Your task to perform on an android device: Open Google Maps Image 0: 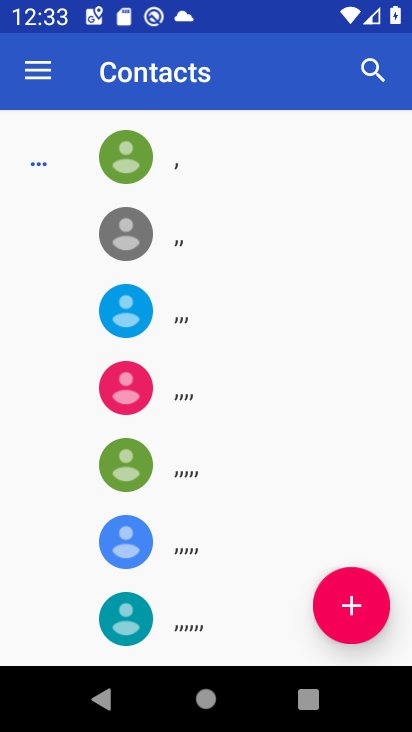
Step 0: press back button
Your task to perform on an android device: Open Google Maps Image 1: 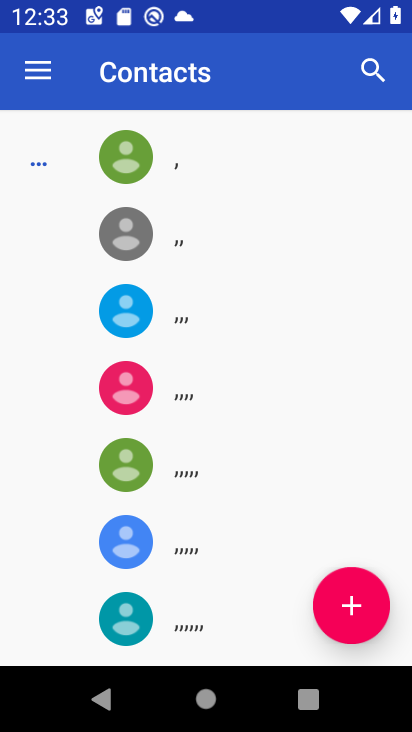
Step 1: press back button
Your task to perform on an android device: Open Google Maps Image 2: 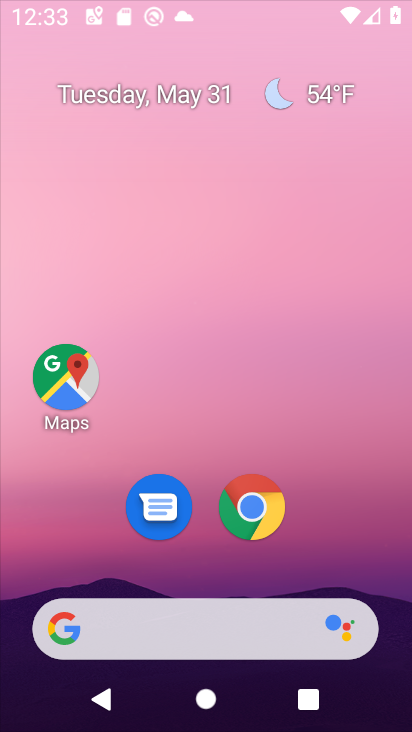
Step 2: press back button
Your task to perform on an android device: Open Google Maps Image 3: 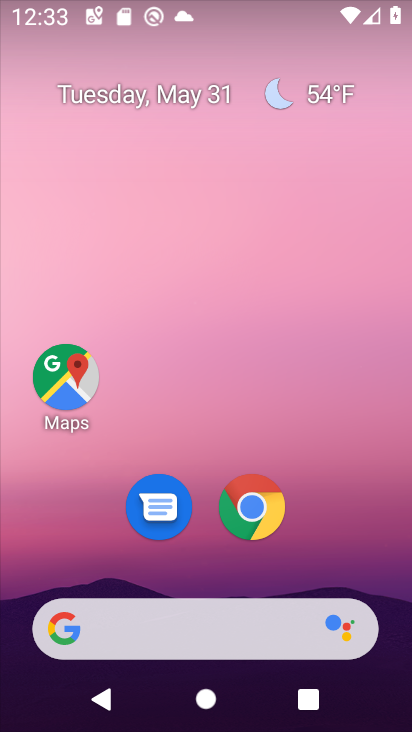
Step 3: drag from (268, 691) to (152, 117)
Your task to perform on an android device: Open Google Maps Image 4: 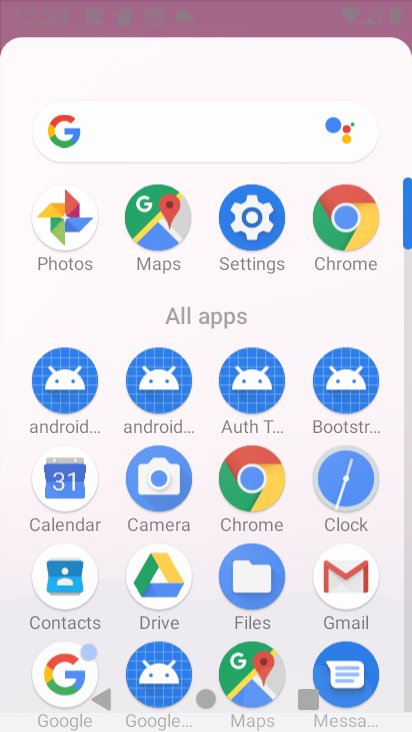
Step 4: click (124, 245)
Your task to perform on an android device: Open Google Maps Image 5: 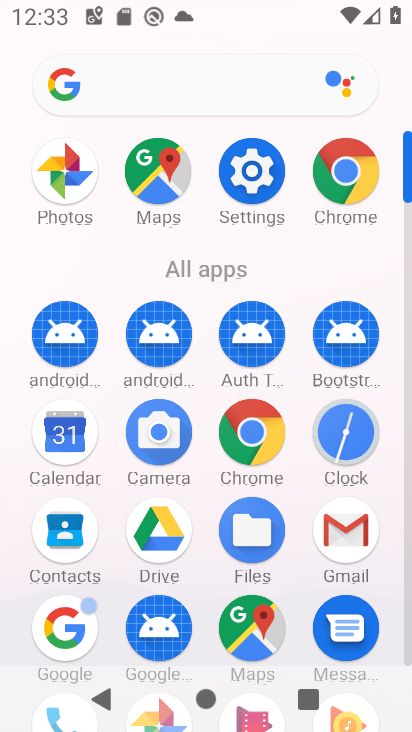
Step 5: click (266, 631)
Your task to perform on an android device: Open Google Maps Image 6: 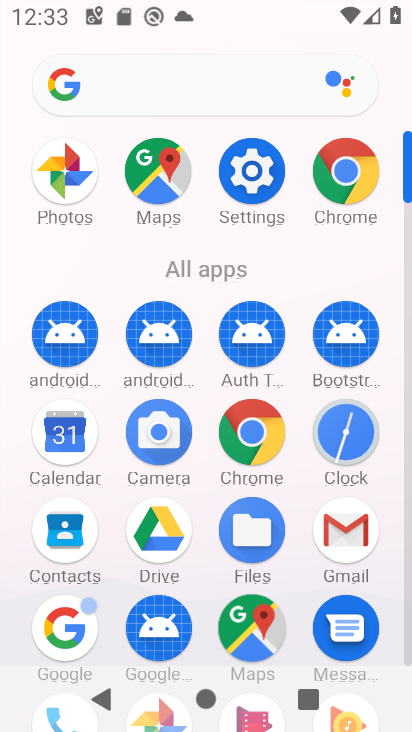
Step 6: click (264, 633)
Your task to perform on an android device: Open Google Maps Image 7: 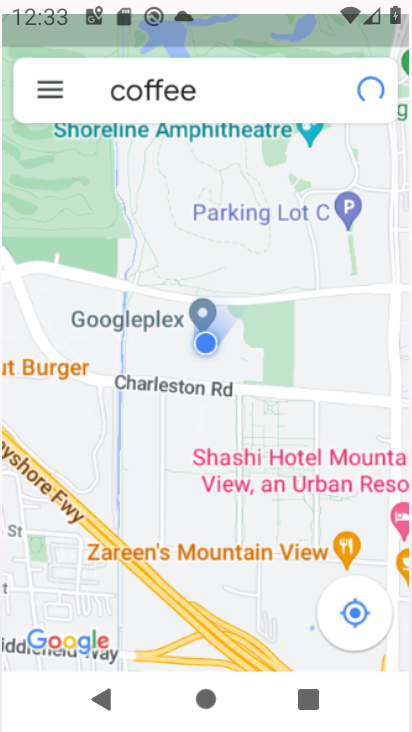
Step 7: click (259, 636)
Your task to perform on an android device: Open Google Maps Image 8: 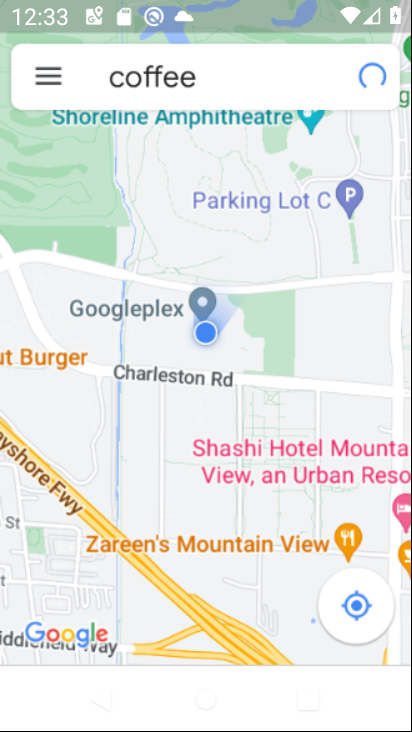
Step 8: click (255, 644)
Your task to perform on an android device: Open Google Maps Image 9: 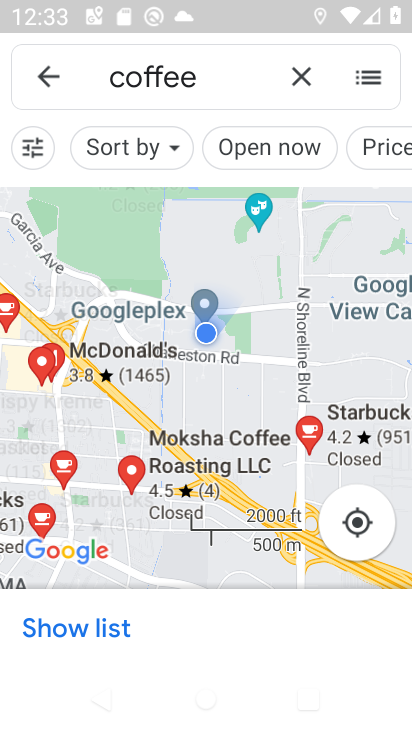
Step 9: click (300, 74)
Your task to perform on an android device: Open Google Maps Image 10: 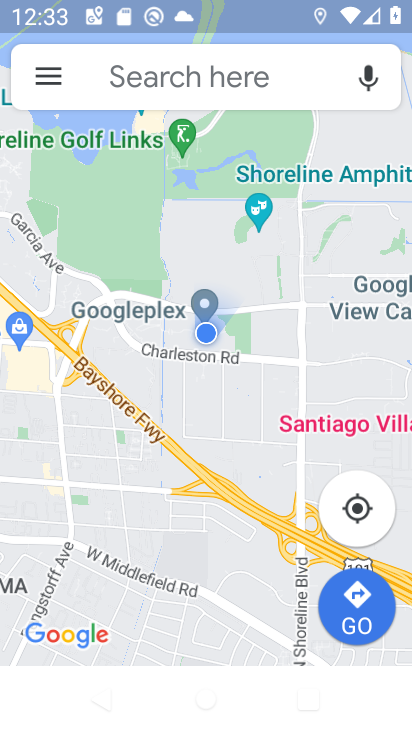
Step 10: click (122, 73)
Your task to perform on an android device: Open Google Maps Image 11: 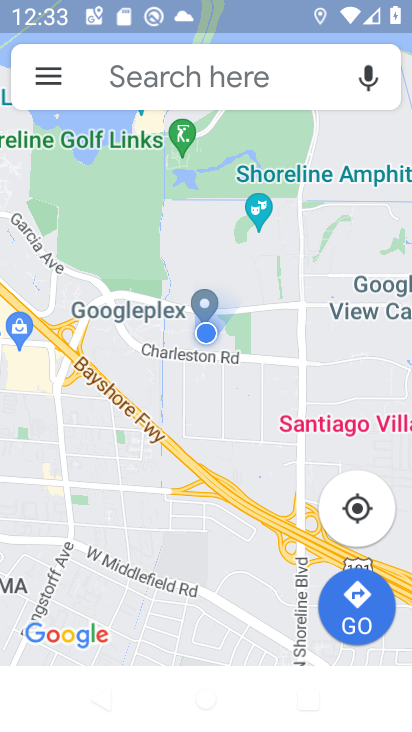
Step 11: click (124, 75)
Your task to perform on an android device: Open Google Maps Image 12: 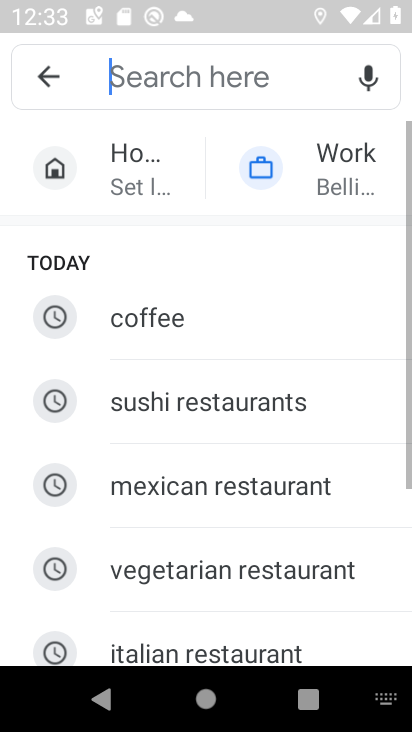
Step 12: task complete